Your task to perform on an android device: Search for dining room chairs on Crate & Barrel Image 0: 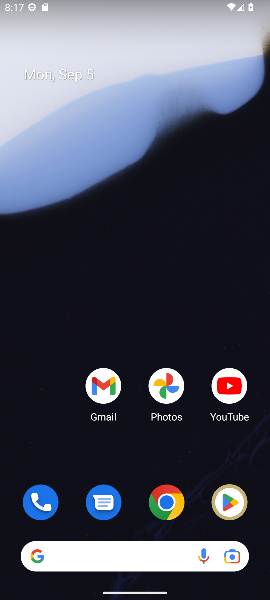
Step 0: drag from (210, 507) to (149, 25)
Your task to perform on an android device: Search for dining room chairs on Crate & Barrel Image 1: 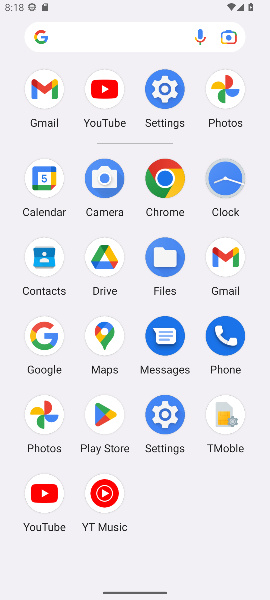
Step 1: click (36, 333)
Your task to perform on an android device: Search for dining room chairs on Crate & Barrel Image 2: 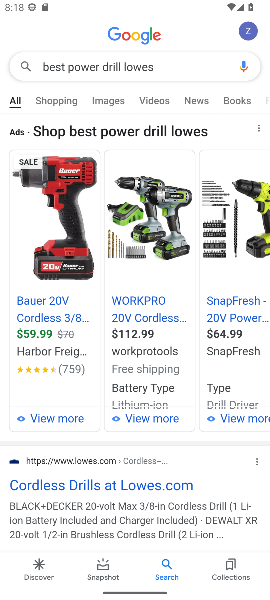
Step 2: press back button
Your task to perform on an android device: Search for dining room chairs on Crate & Barrel Image 3: 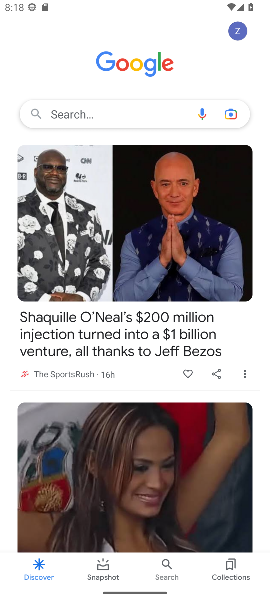
Step 3: click (87, 109)
Your task to perform on an android device: Search for dining room chairs on Crate & Barrel Image 4: 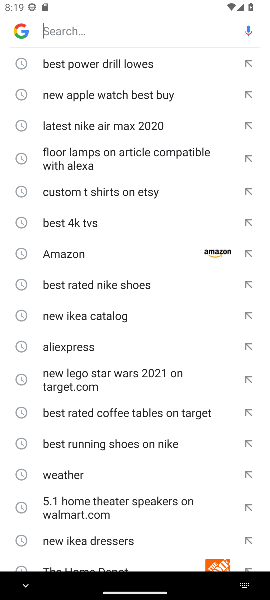
Step 4: type "dining room chairs on Crate & Barrel"
Your task to perform on an android device: Search for dining room chairs on Crate & Barrel Image 5: 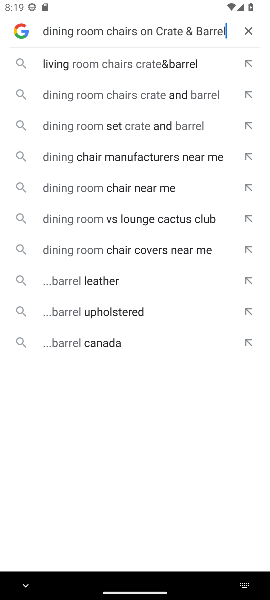
Step 5: click (89, 95)
Your task to perform on an android device: Search for dining room chairs on Crate & Barrel Image 6: 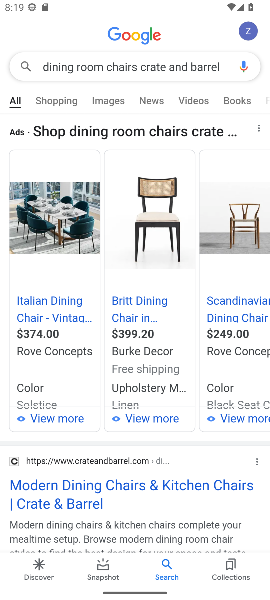
Step 6: task complete